Your task to perform on an android device: Turn off the flashlight Image 0: 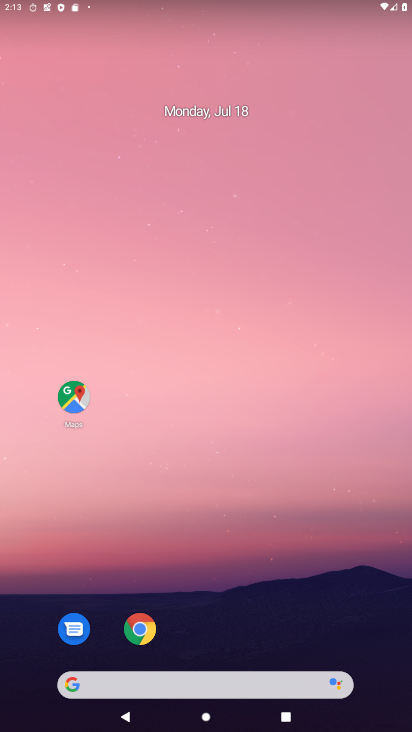
Step 0: press home button
Your task to perform on an android device: Turn off the flashlight Image 1: 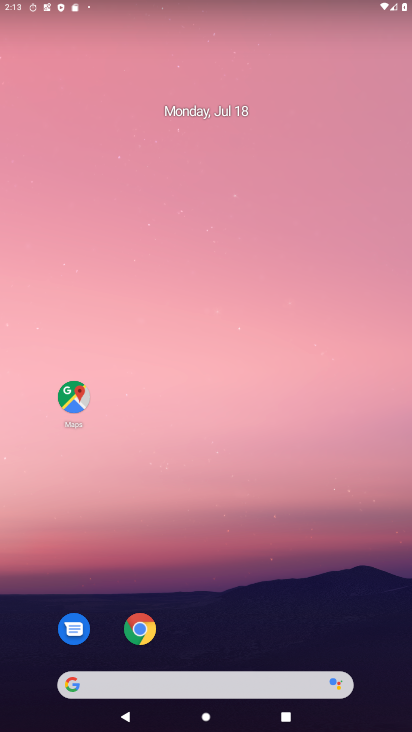
Step 1: drag from (225, 655) to (255, 0)
Your task to perform on an android device: Turn off the flashlight Image 2: 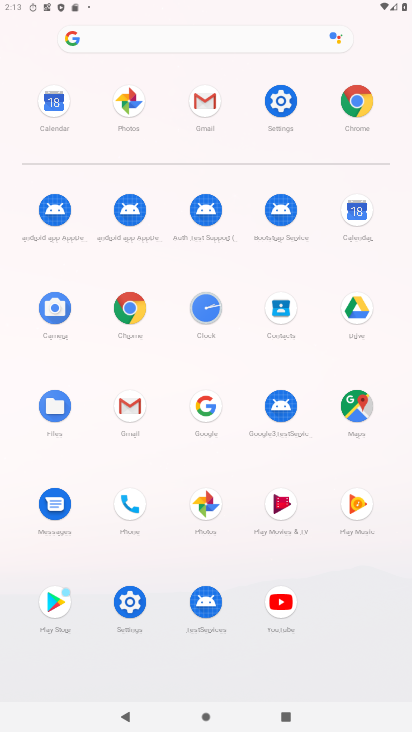
Step 2: click (278, 95)
Your task to perform on an android device: Turn off the flashlight Image 3: 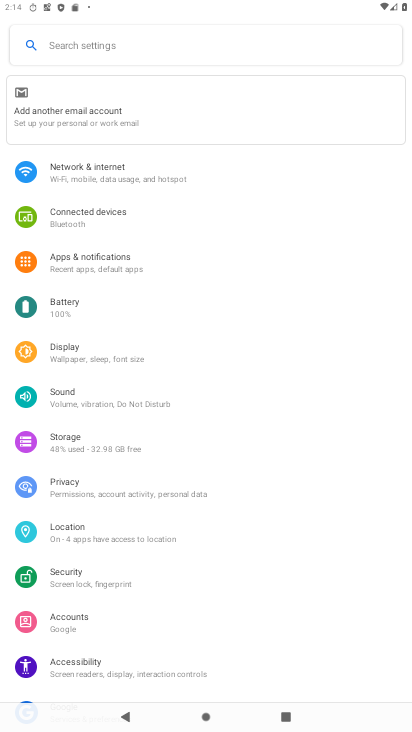
Step 3: click (92, 50)
Your task to perform on an android device: Turn off the flashlight Image 4: 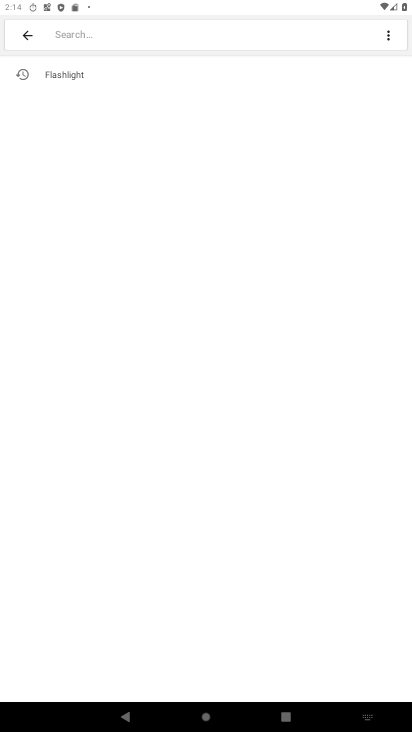
Step 4: click (80, 63)
Your task to perform on an android device: Turn off the flashlight Image 5: 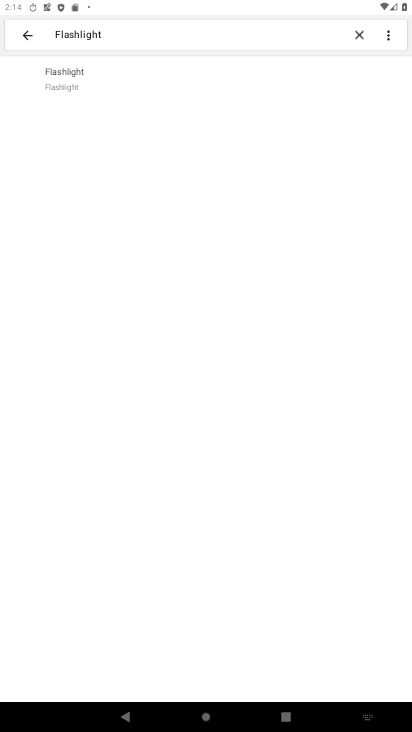
Step 5: click (92, 85)
Your task to perform on an android device: Turn off the flashlight Image 6: 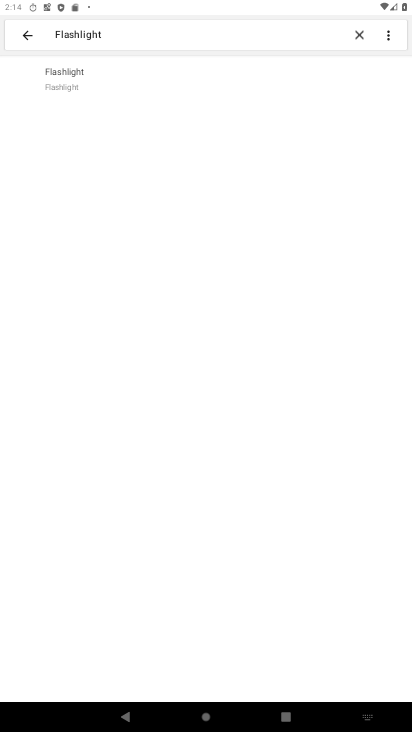
Step 6: task complete